Your task to perform on an android device: Clear the cart on ebay. Search for "bose soundlink mini" on ebay, select the first entry, add it to the cart, then select checkout. Image 0: 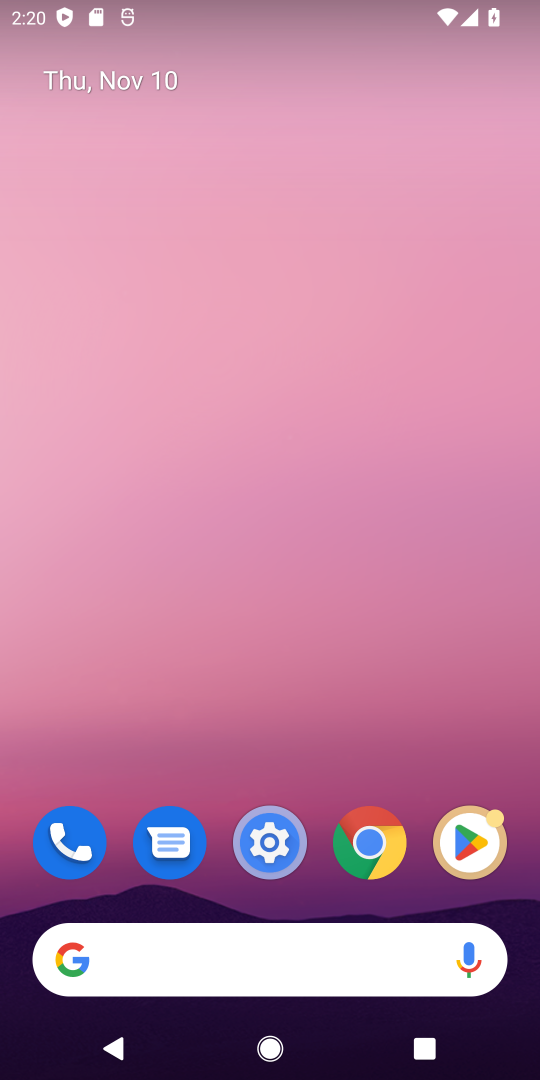
Step 0: press home button
Your task to perform on an android device: Clear the cart on ebay. Search for "bose soundlink mini" on ebay, select the first entry, add it to the cart, then select checkout. Image 1: 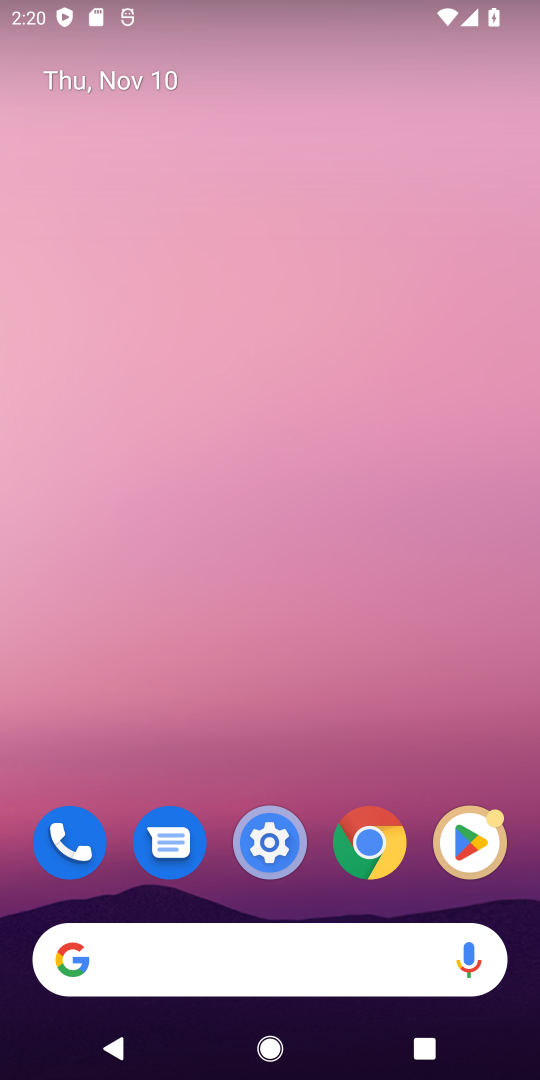
Step 1: click (114, 955)
Your task to perform on an android device: Clear the cart on ebay. Search for "bose soundlink mini" on ebay, select the first entry, add it to the cart, then select checkout. Image 2: 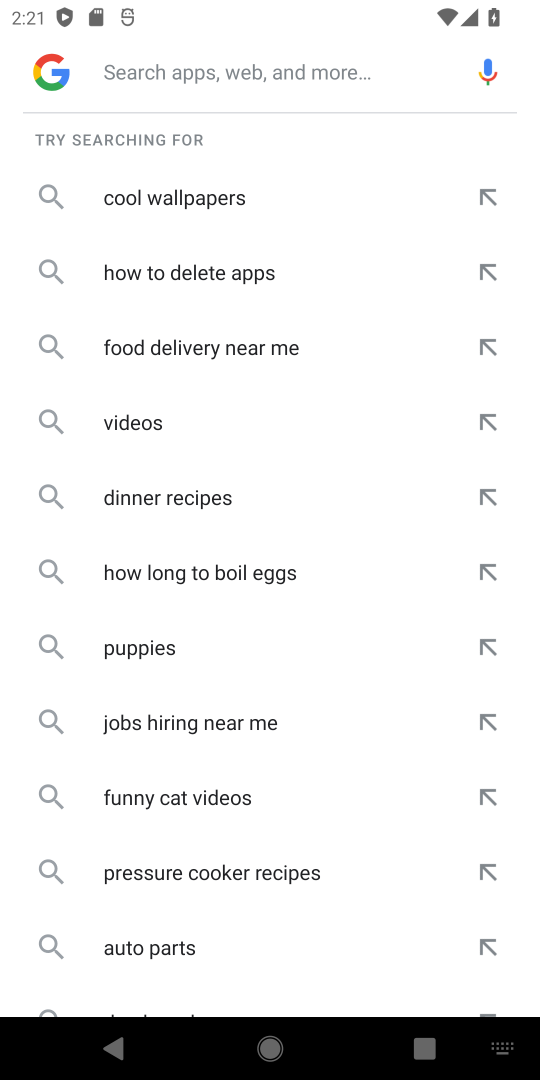
Step 2: type "ebay"
Your task to perform on an android device: Clear the cart on ebay. Search for "bose soundlink mini" on ebay, select the first entry, add it to the cart, then select checkout. Image 3: 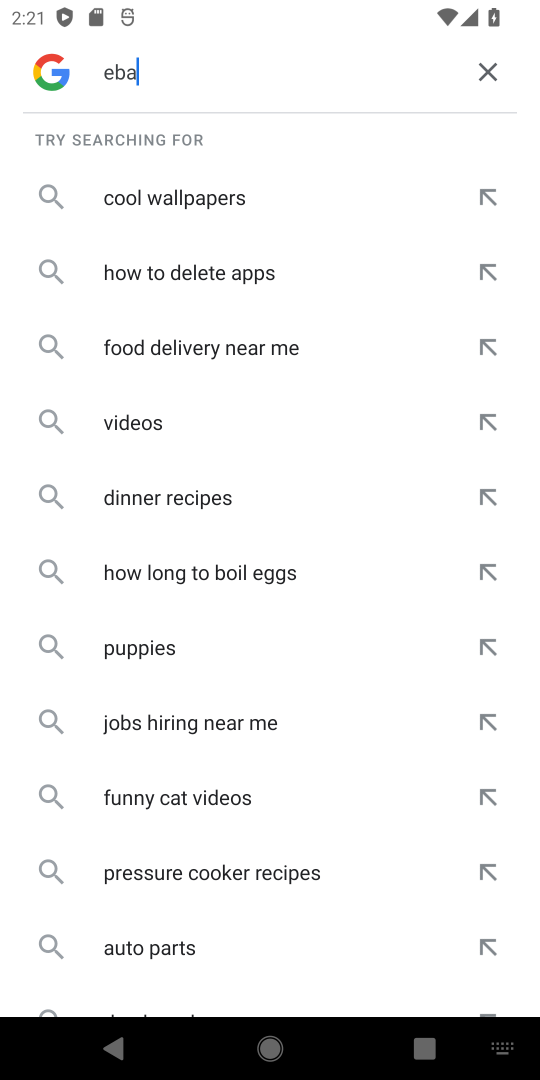
Step 3: press enter
Your task to perform on an android device: Clear the cart on ebay. Search for "bose soundlink mini" on ebay, select the first entry, add it to the cart, then select checkout. Image 4: 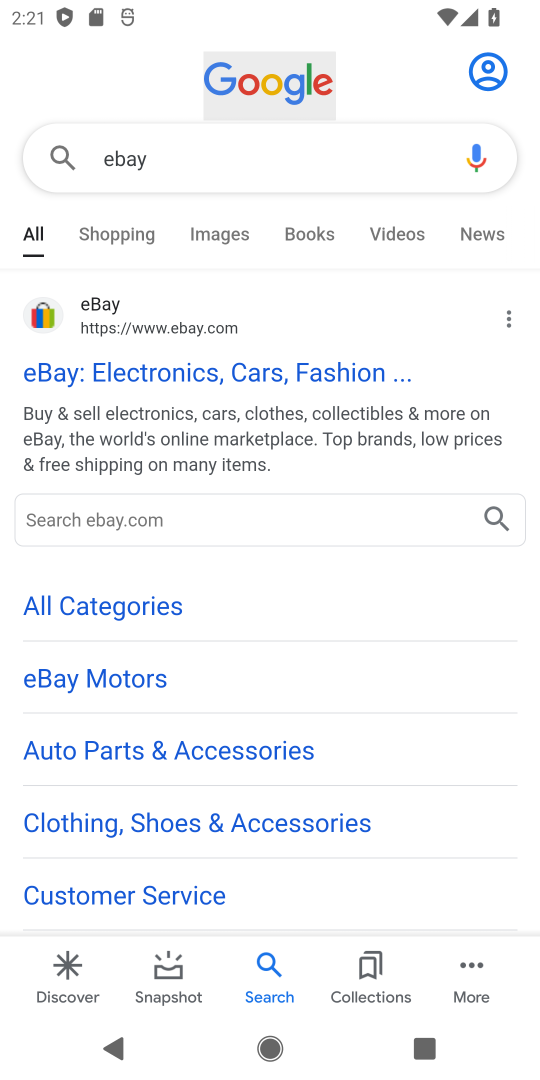
Step 4: click (119, 372)
Your task to perform on an android device: Clear the cart on ebay. Search for "bose soundlink mini" on ebay, select the first entry, add it to the cart, then select checkout. Image 5: 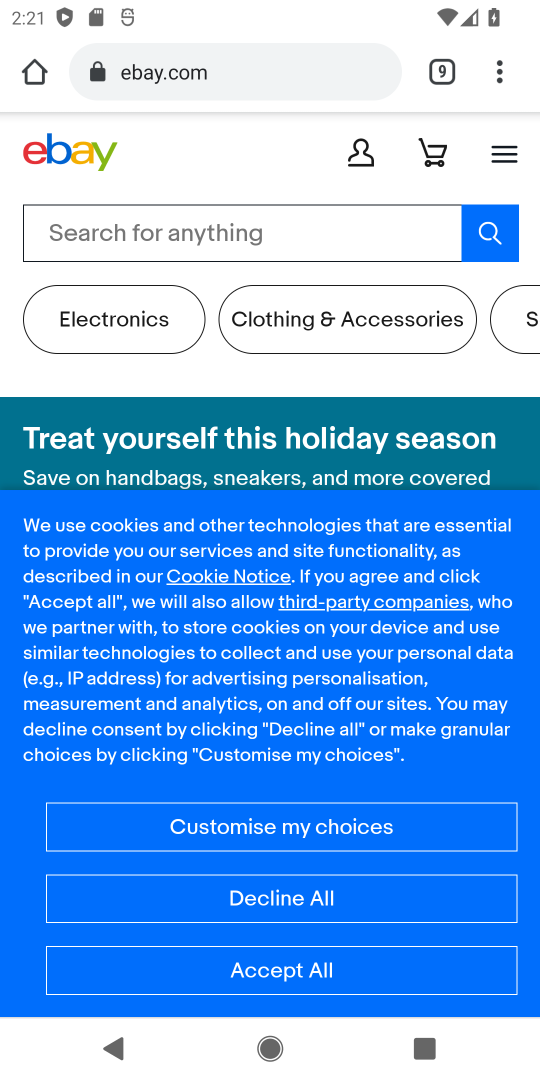
Step 5: click (303, 979)
Your task to perform on an android device: Clear the cart on ebay. Search for "bose soundlink mini" on ebay, select the first entry, add it to the cart, then select checkout. Image 6: 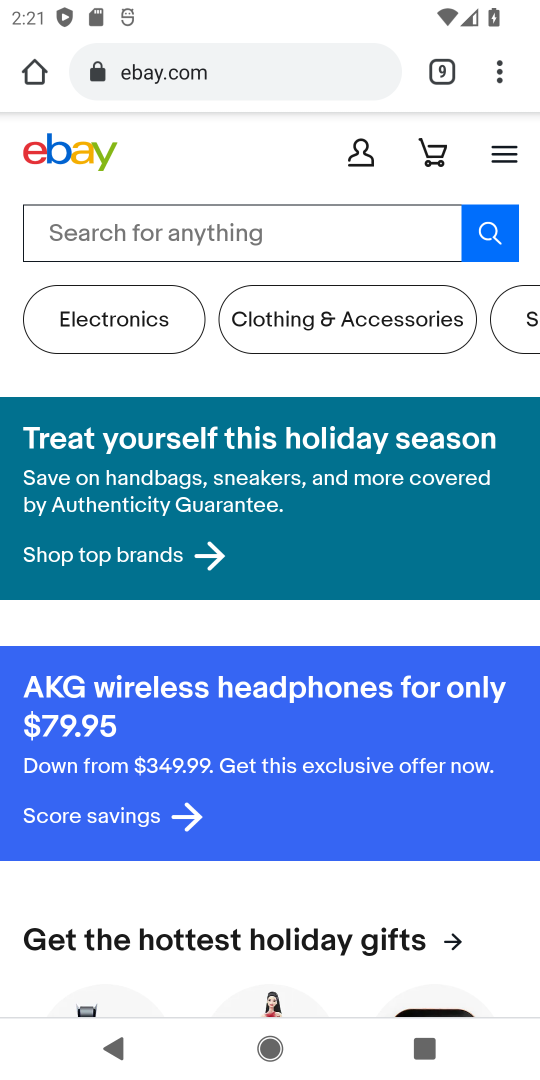
Step 6: click (204, 223)
Your task to perform on an android device: Clear the cart on ebay. Search for "bose soundlink mini" on ebay, select the first entry, add it to the cart, then select checkout. Image 7: 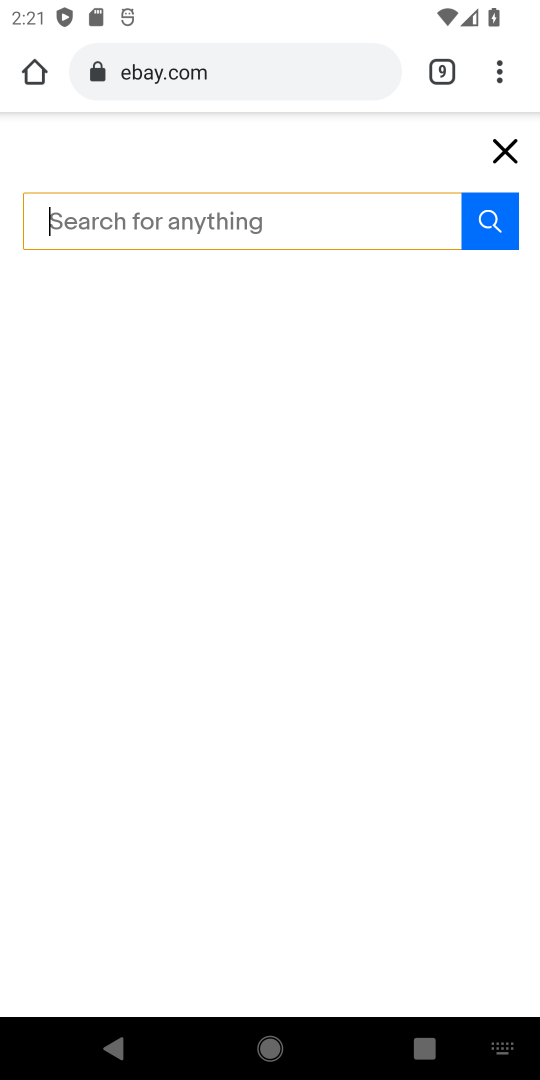
Step 7: type "bose soundlink mini"
Your task to perform on an android device: Clear the cart on ebay. Search for "bose soundlink mini" on ebay, select the first entry, add it to the cart, then select checkout. Image 8: 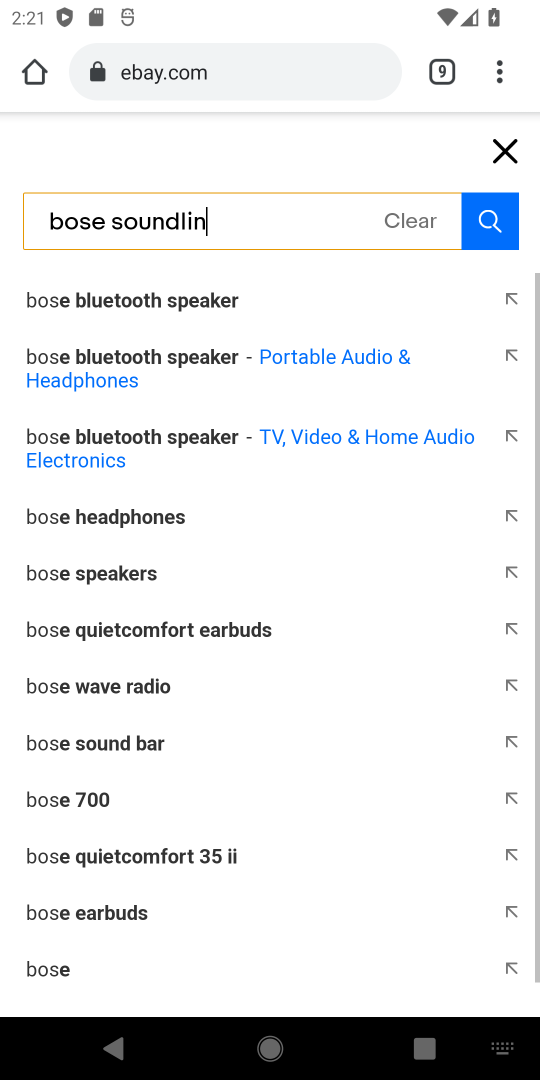
Step 8: press enter
Your task to perform on an android device: Clear the cart on ebay. Search for "bose soundlink mini" on ebay, select the first entry, add it to the cart, then select checkout. Image 9: 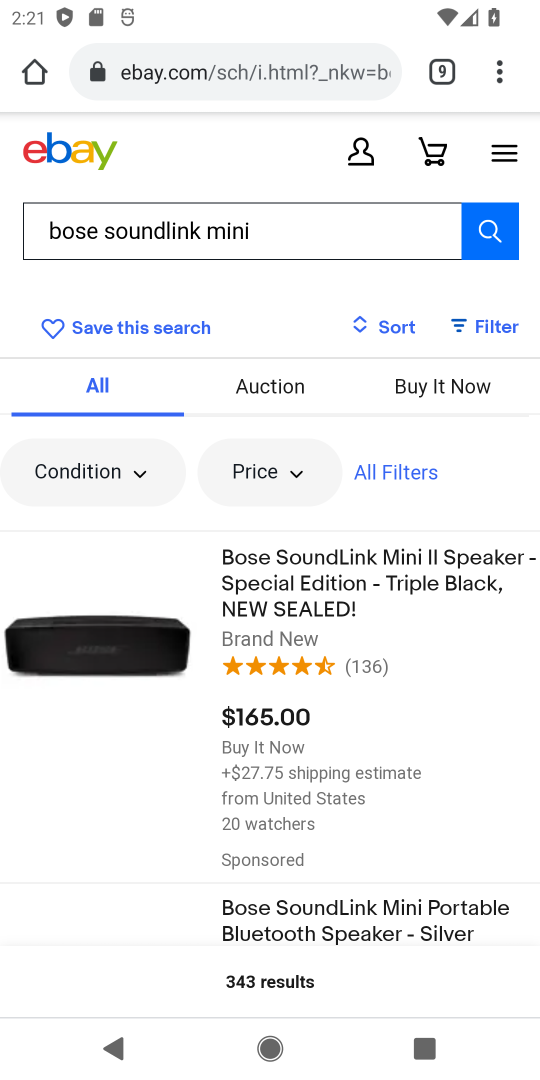
Step 9: drag from (420, 825) to (417, 605)
Your task to perform on an android device: Clear the cart on ebay. Search for "bose soundlink mini" on ebay, select the first entry, add it to the cart, then select checkout. Image 10: 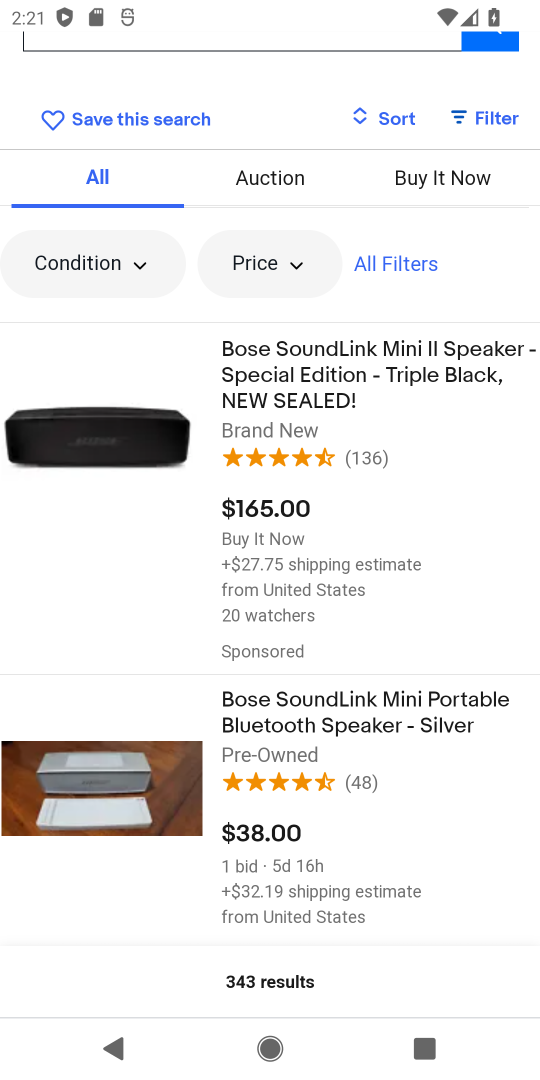
Step 10: click (285, 372)
Your task to perform on an android device: Clear the cart on ebay. Search for "bose soundlink mini" on ebay, select the first entry, add it to the cart, then select checkout. Image 11: 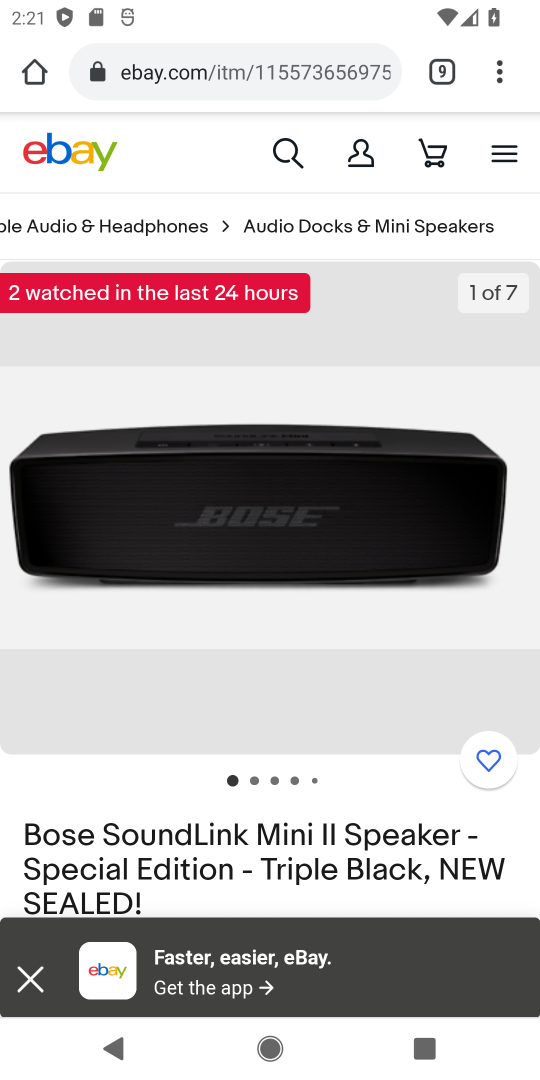
Step 11: drag from (297, 864) to (319, 385)
Your task to perform on an android device: Clear the cart on ebay. Search for "bose soundlink mini" on ebay, select the first entry, add it to the cart, then select checkout. Image 12: 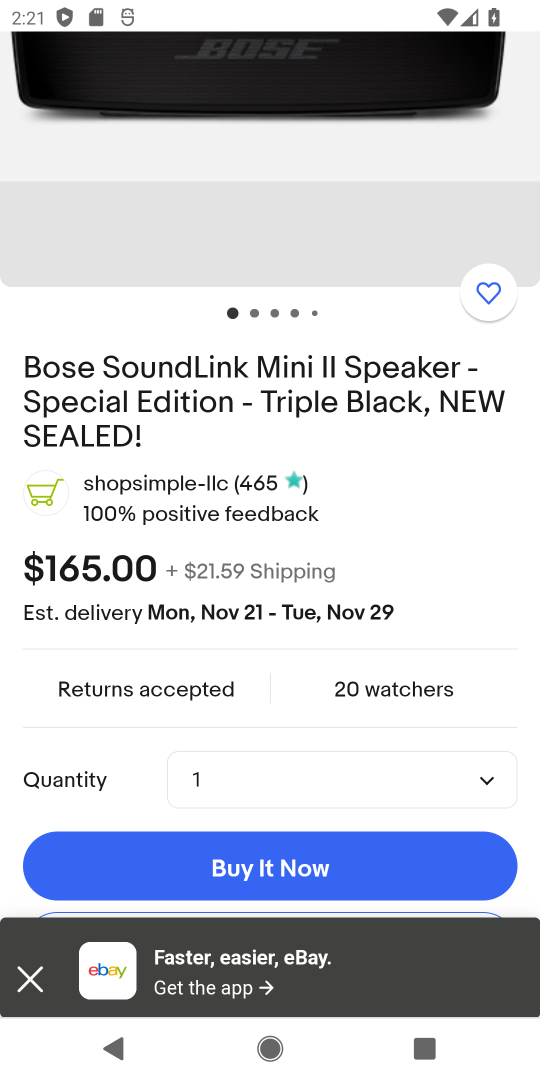
Step 12: drag from (251, 783) to (300, 321)
Your task to perform on an android device: Clear the cart on ebay. Search for "bose soundlink mini" on ebay, select the first entry, add it to the cart, then select checkout. Image 13: 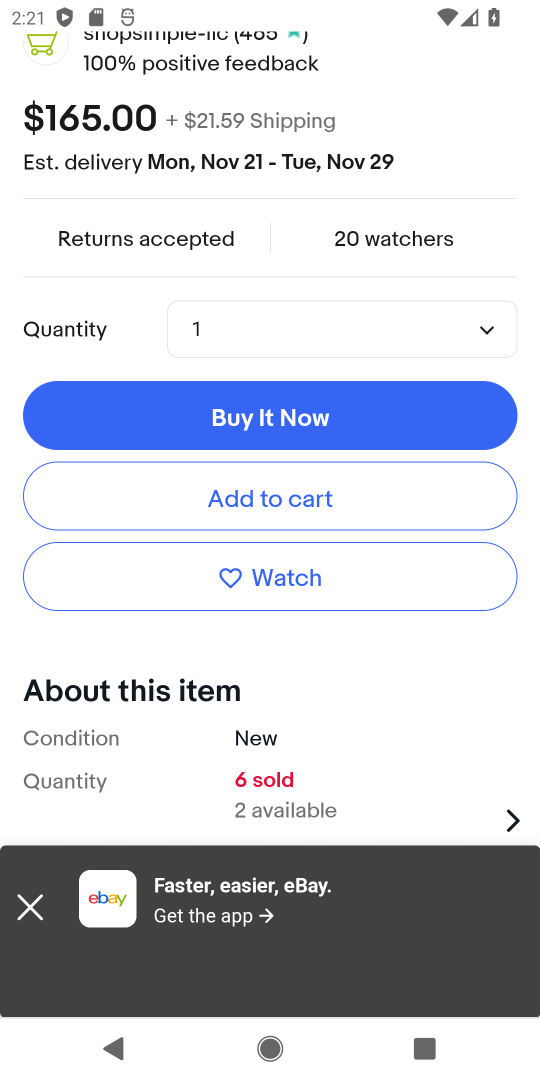
Step 13: click (322, 508)
Your task to perform on an android device: Clear the cart on ebay. Search for "bose soundlink mini" on ebay, select the first entry, add it to the cart, then select checkout. Image 14: 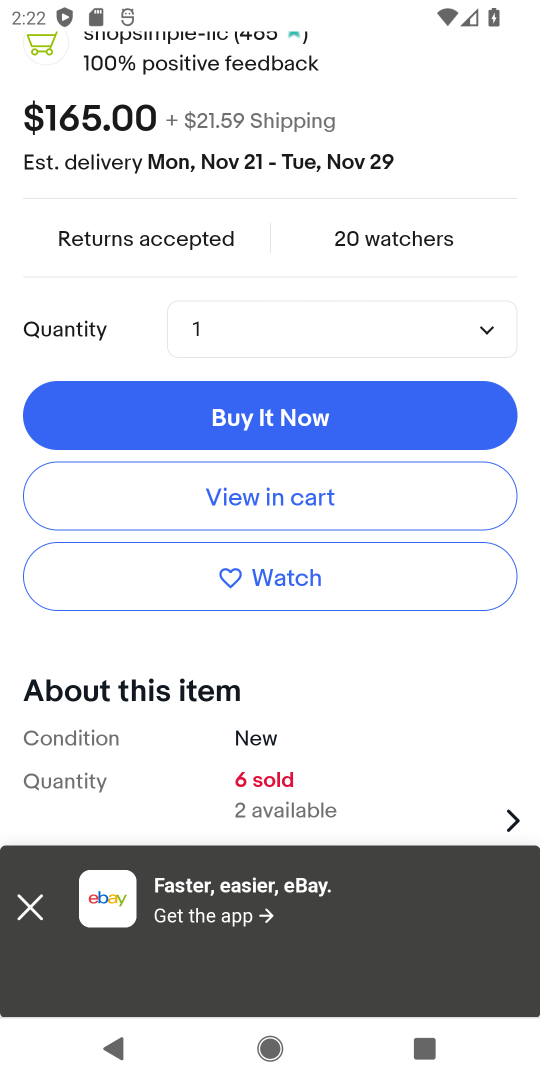
Step 14: click (325, 504)
Your task to perform on an android device: Clear the cart on ebay. Search for "bose soundlink mini" on ebay, select the first entry, add it to the cart, then select checkout. Image 15: 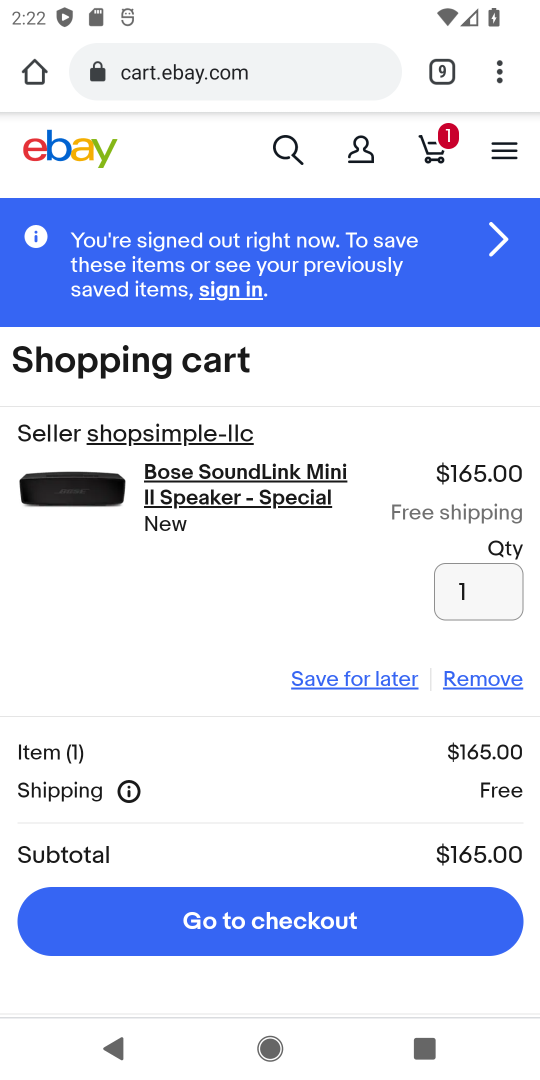
Step 15: click (253, 930)
Your task to perform on an android device: Clear the cart on ebay. Search for "bose soundlink mini" on ebay, select the first entry, add it to the cart, then select checkout. Image 16: 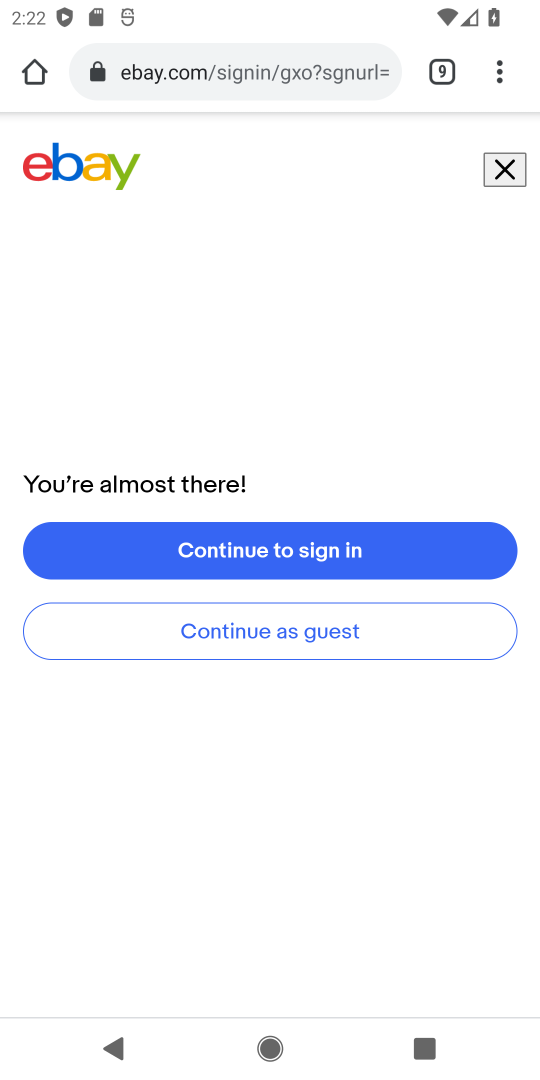
Step 16: task complete